Your task to perform on an android device: see sites visited before in the chrome app Image 0: 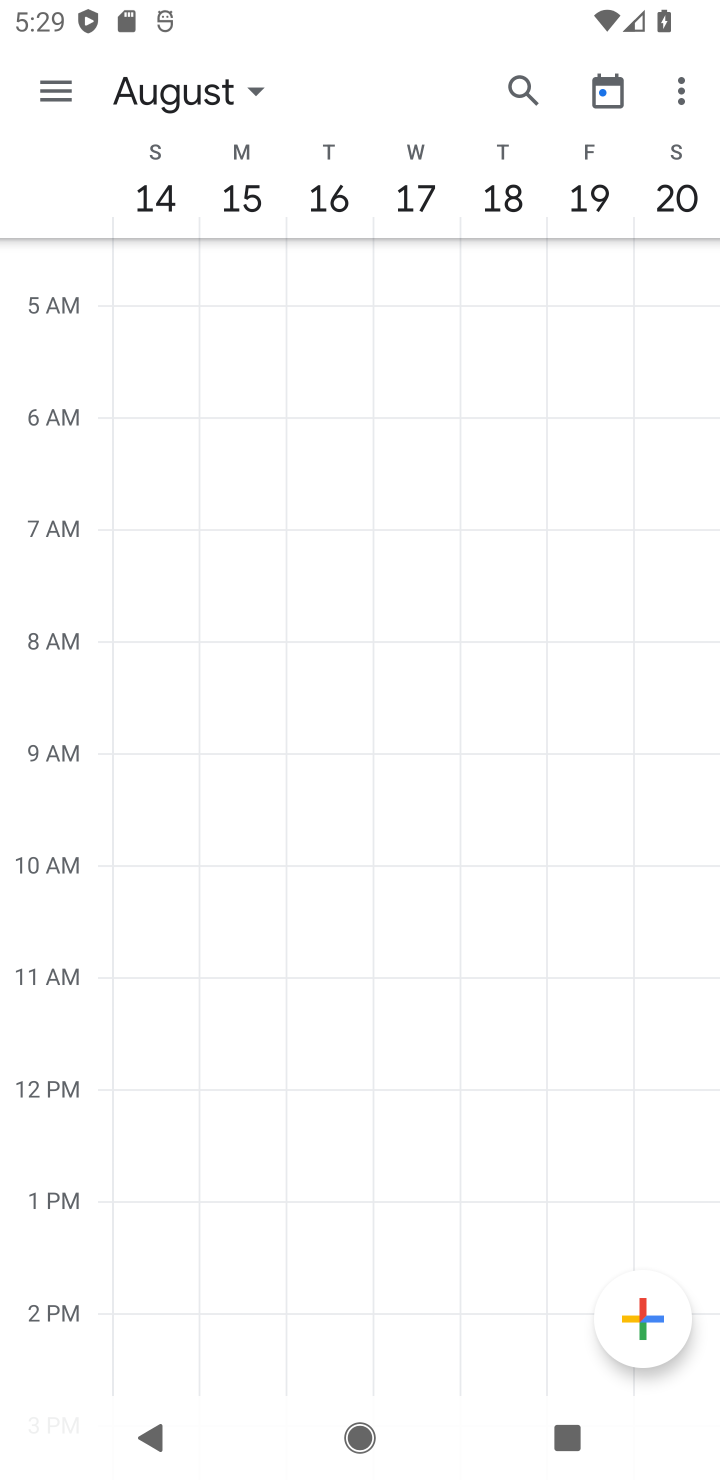
Step 0: press home button
Your task to perform on an android device: see sites visited before in the chrome app Image 1: 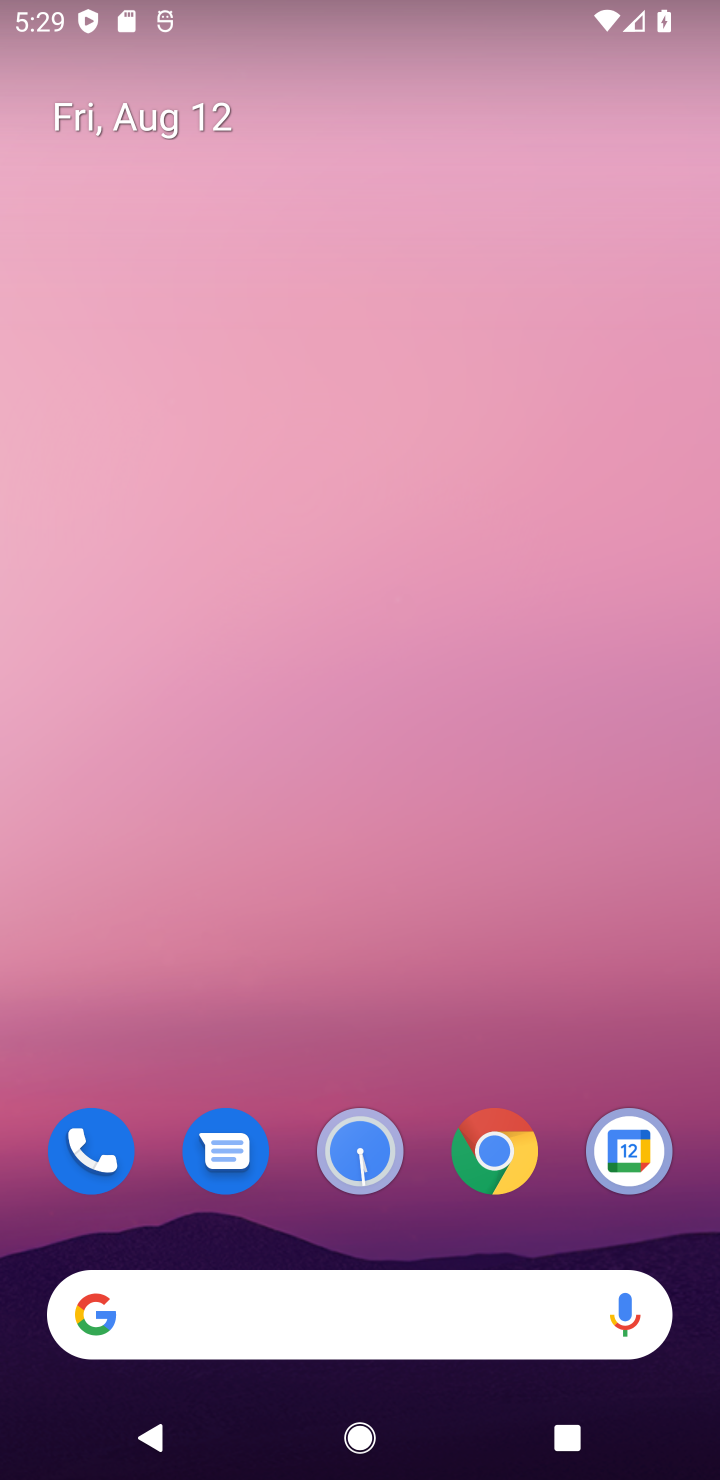
Step 1: drag from (454, 906) to (602, 99)
Your task to perform on an android device: see sites visited before in the chrome app Image 2: 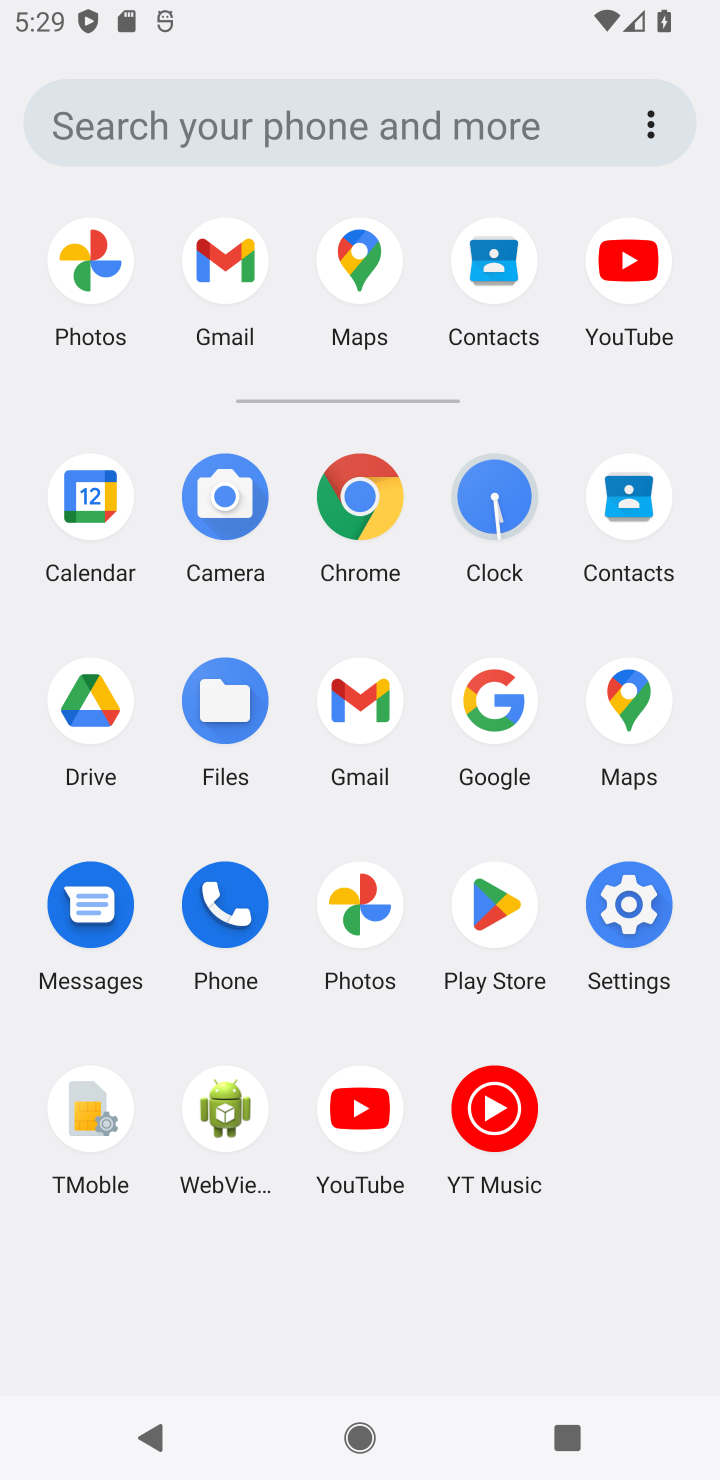
Step 2: click (369, 497)
Your task to perform on an android device: see sites visited before in the chrome app Image 3: 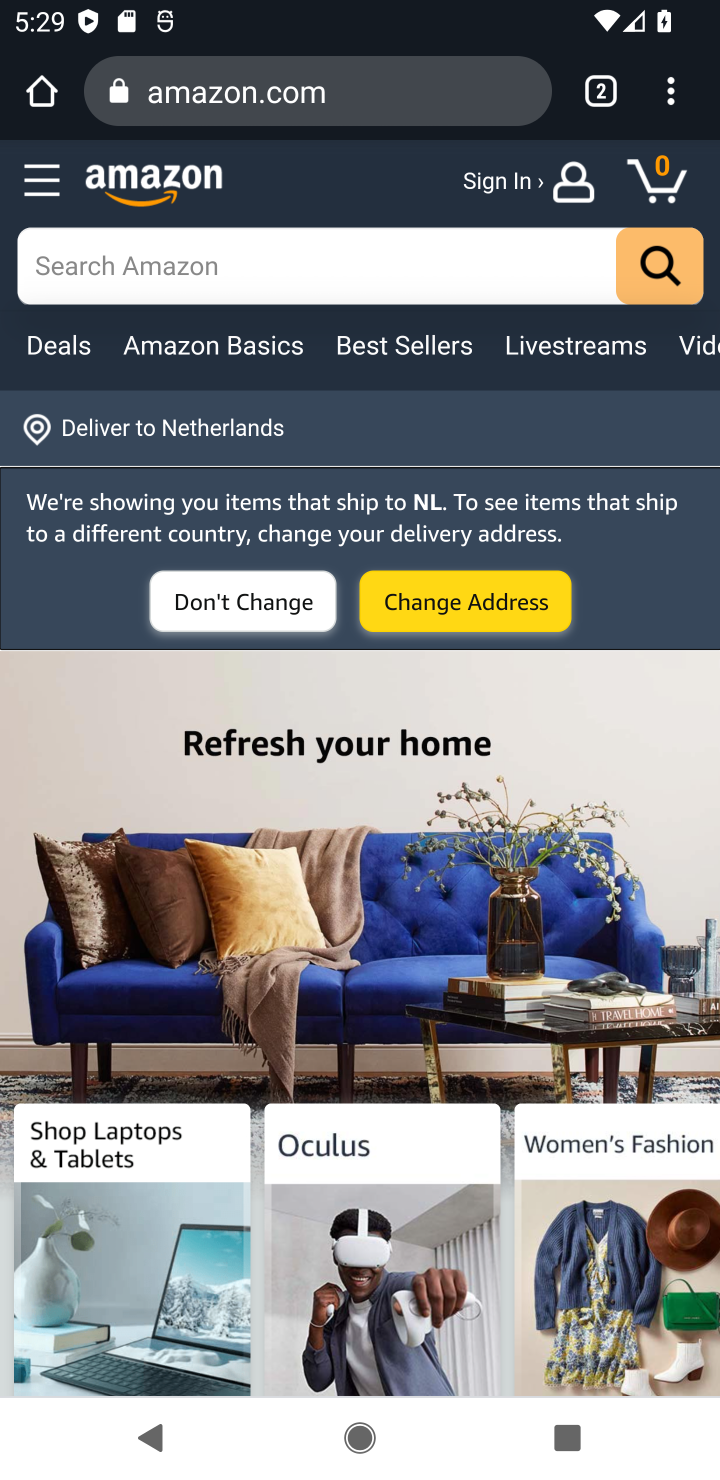
Step 3: task complete